Your task to perform on an android device: see sites visited before in the chrome app Image 0: 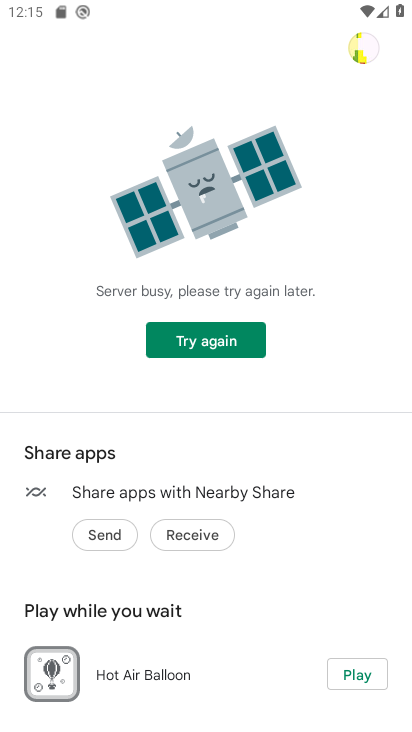
Step 0: press home button
Your task to perform on an android device: see sites visited before in the chrome app Image 1: 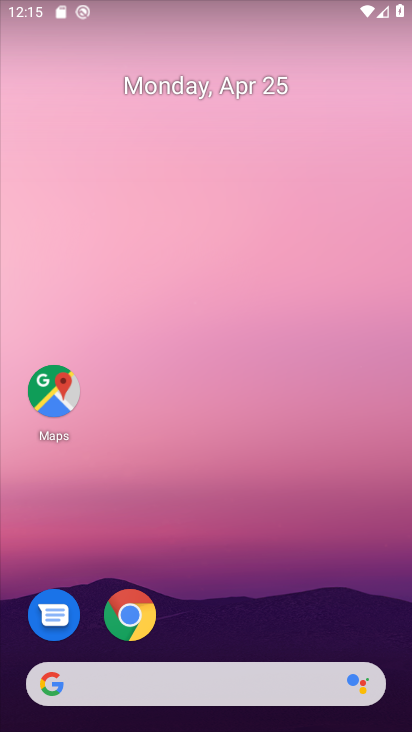
Step 1: drag from (201, 644) to (203, 5)
Your task to perform on an android device: see sites visited before in the chrome app Image 2: 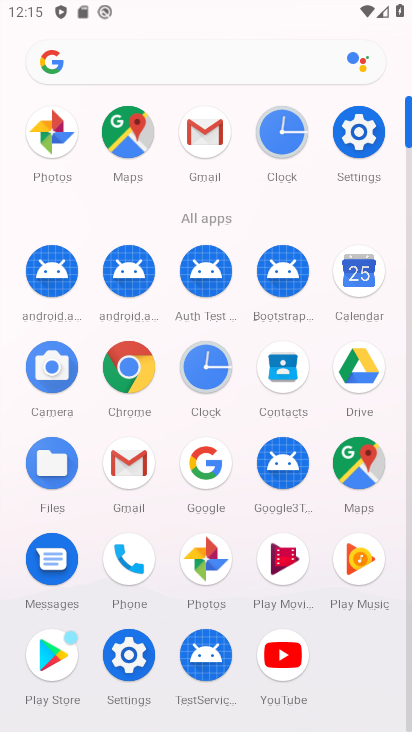
Step 2: click (126, 373)
Your task to perform on an android device: see sites visited before in the chrome app Image 3: 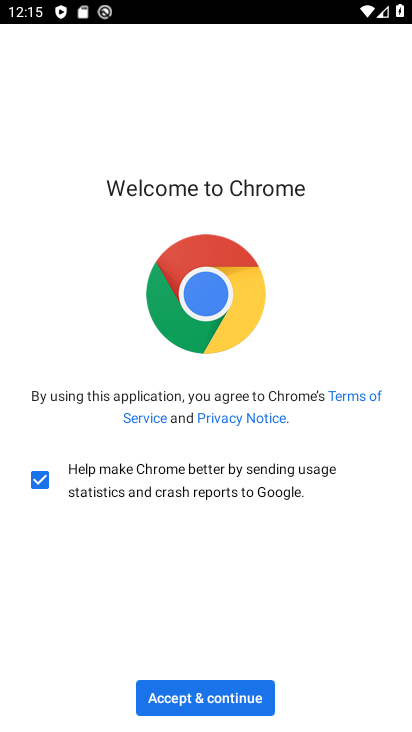
Step 3: click (195, 686)
Your task to perform on an android device: see sites visited before in the chrome app Image 4: 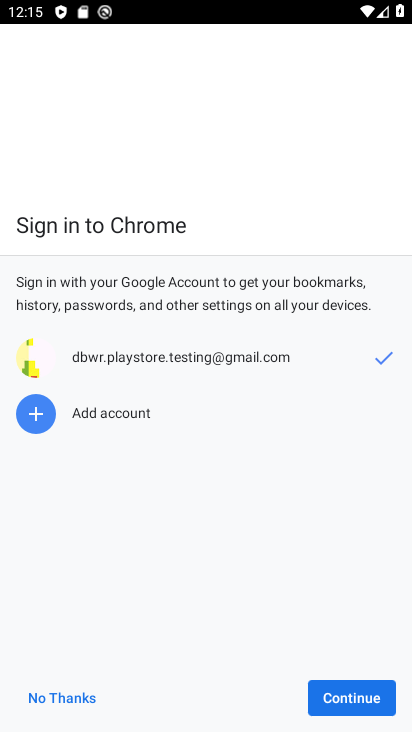
Step 4: click (335, 695)
Your task to perform on an android device: see sites visited before in the chrome app Image 5: 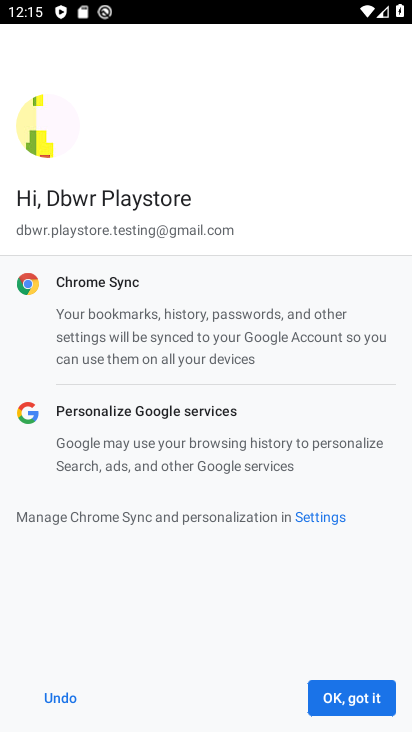
Step 5: click (361, 695)
Your task to perform on an android device: see sites visited before in the chrome app Image 6: 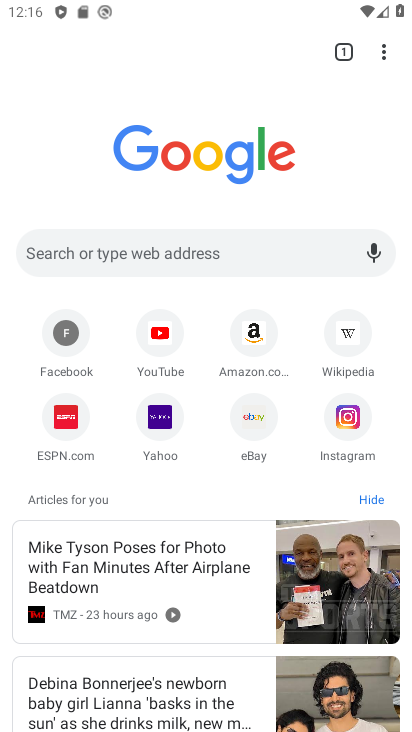
Step 6: click (381, 53)
Your task to perform on an android device: see sites visited before in the chrome app Image 7: 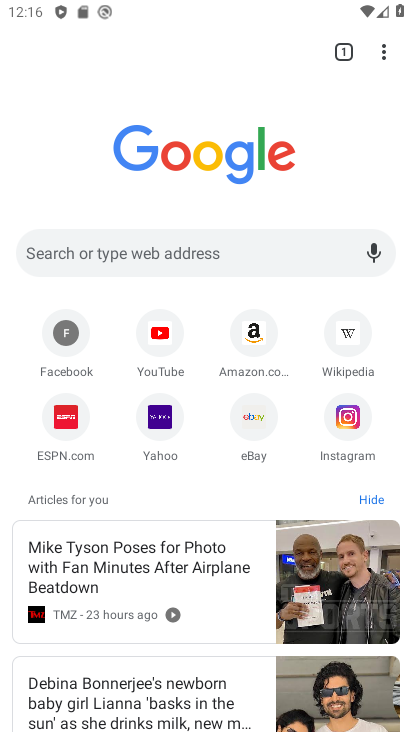
Step 7: click (379, 55)
Your task to perform on an android device: see sites visited before in the chrome app Image 8: 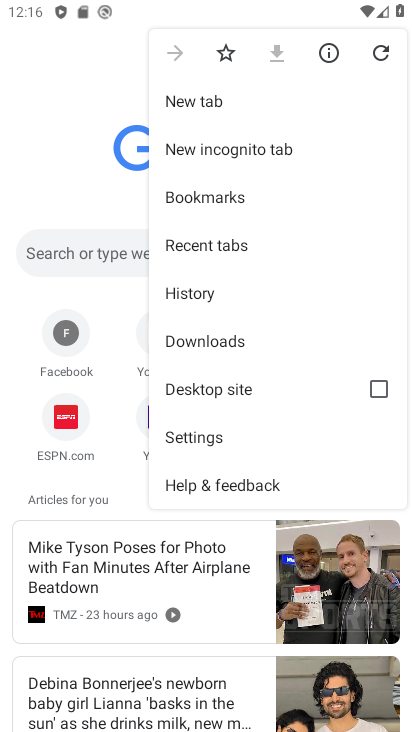
Step 8: click (225, 287)
Your task to perform on an android device: see sites visited before in the chrome app Image 9: 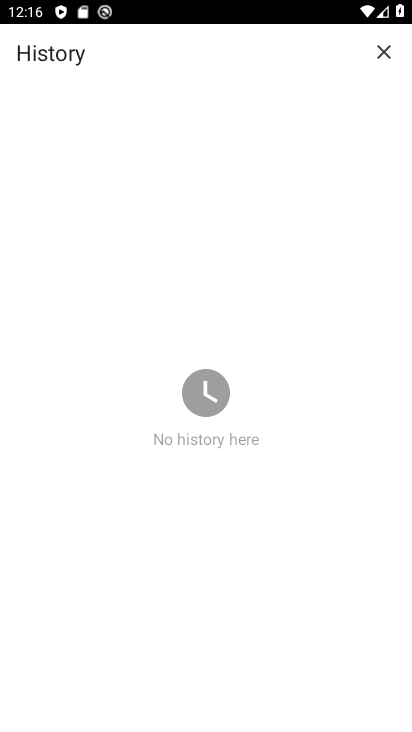
Step 9: task complete